Your task to perform on an android device: turn on sleep mode Image 0: 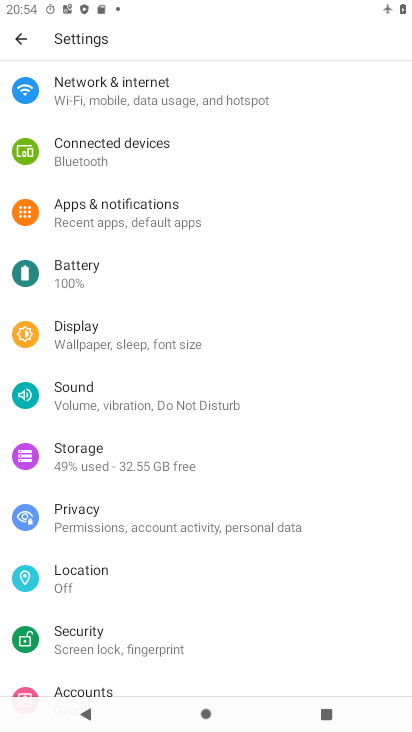
Step 0: click (146, 330)
Your task to perform on an android device: turn on sleep mode Image 1: 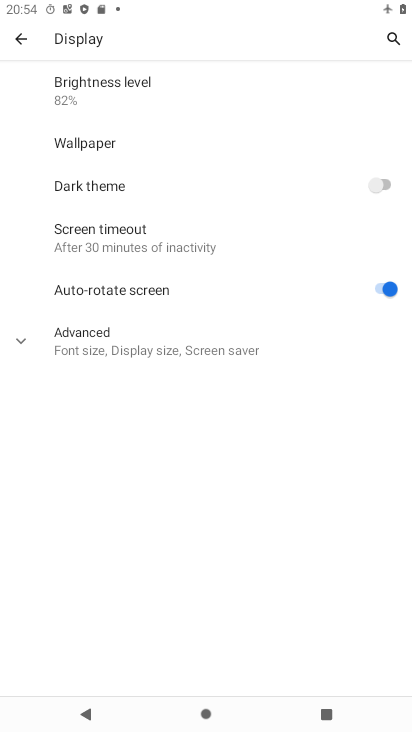
Step 1: click (204, 236)
Your task to perform on an android device: turn on sleep mode Image 2: 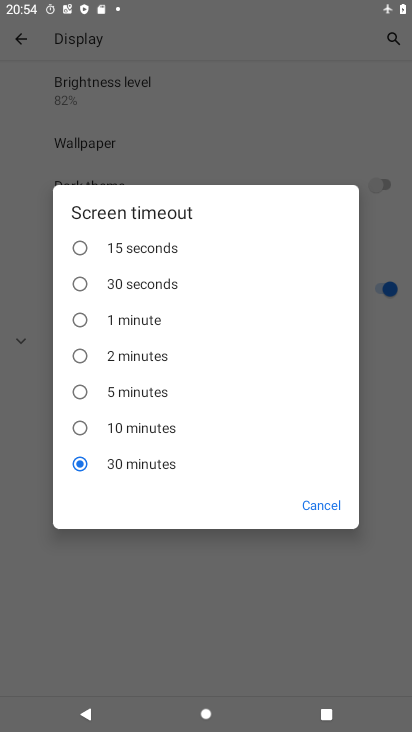
Step 2: click (144, 317)
Your task to perform on an android device: turn on sleep mode Image 3: 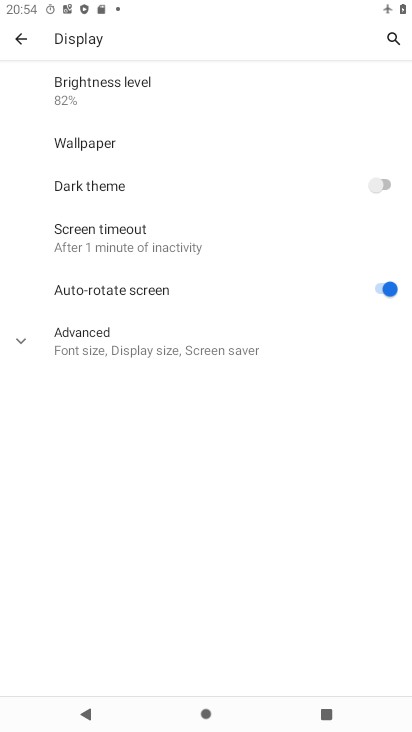
Step 3: task complete